Your task to perform on an android device: Go to calendar. Show me events next week Image 0: 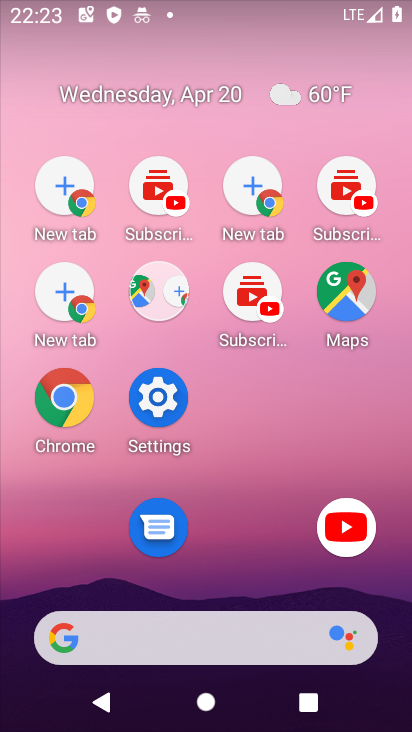
Step 0: drag from (291, 698) to (189, 170)
Your task to perform on an android device: Go to calendar. Show me events next week Image 1: 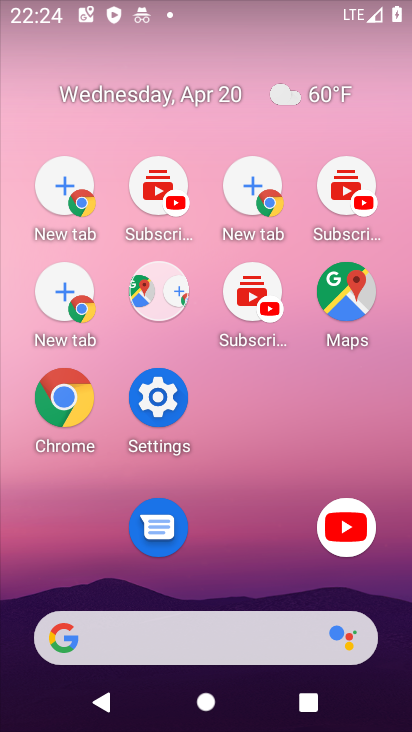
Step 1: drag from (282, 430) to (255, 67)
Your task to perform on an android device: Go to calendar. Show me events next week Image 2: 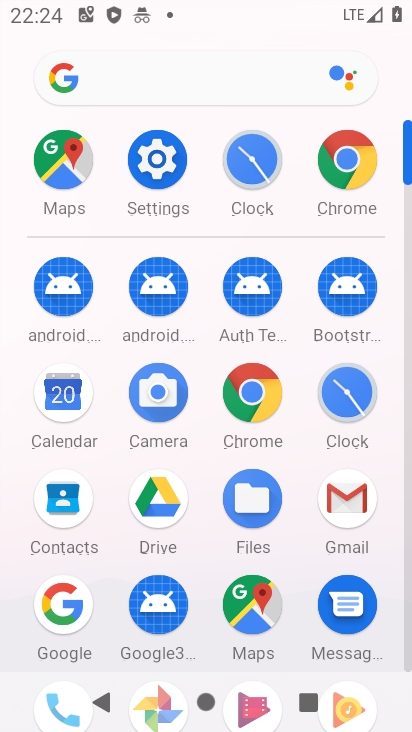
Step 2: drag from (238, 366) to (223, 271)
Your task to perform on an android device: Go to calendar. Show me events next week Image 3: 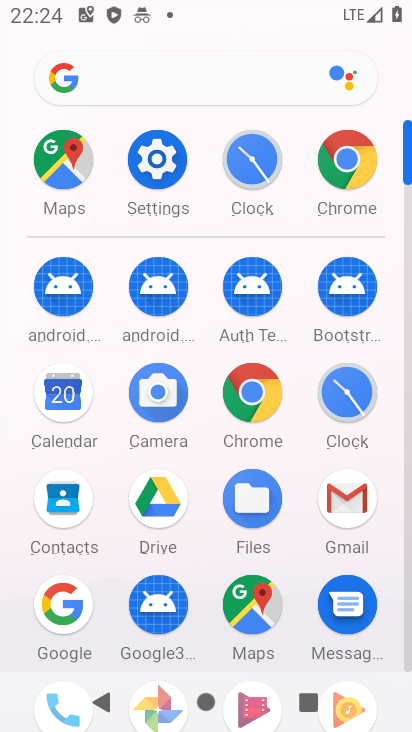
Step 3: click (55, 398)
Your task to perform on an android device: Go to calendar. Show me events next week Image 4: 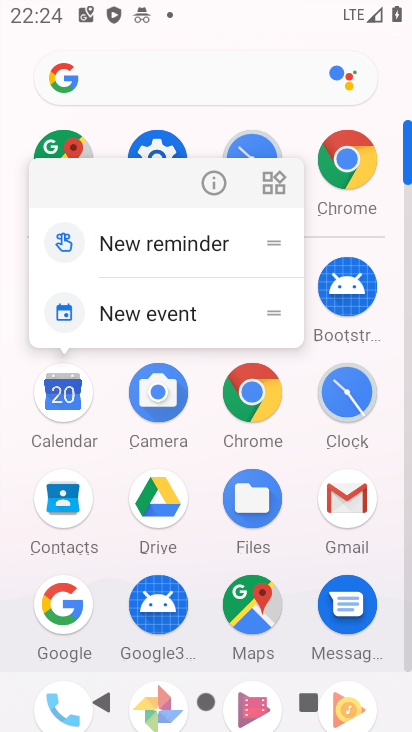
Step 4: click (64, 392)
Your task to perform on an android device: Go to calendar. Show me events next week Image 5: 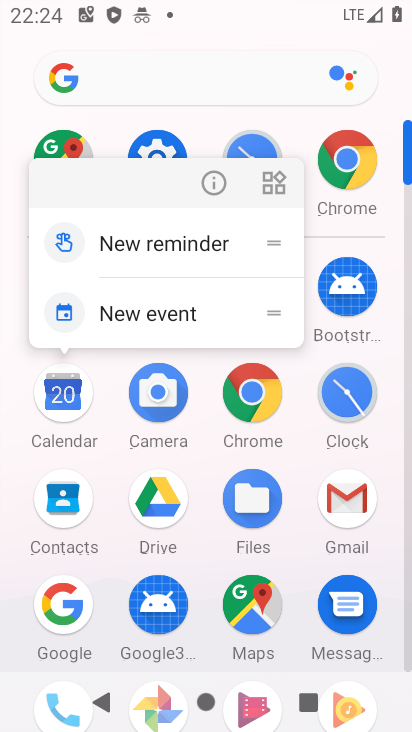
Step 5: click (64, 400)
Your task to perform on an android device: Go to calendar. Show me events next week Image 6: 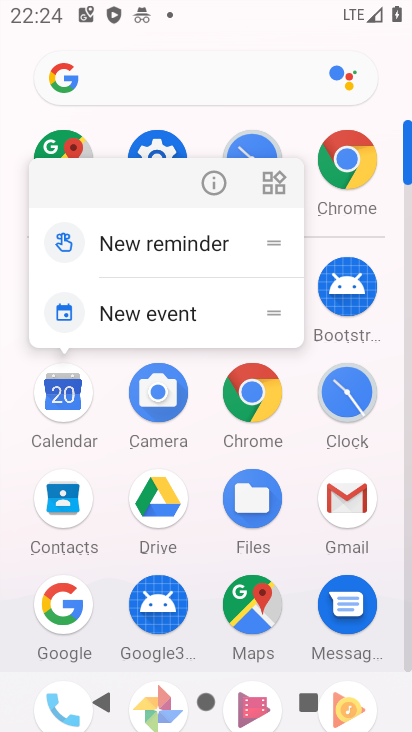
Step 6: click (67, 399)
Your task to perform on an android device: Go to calendar. Show me events next week Image 7: 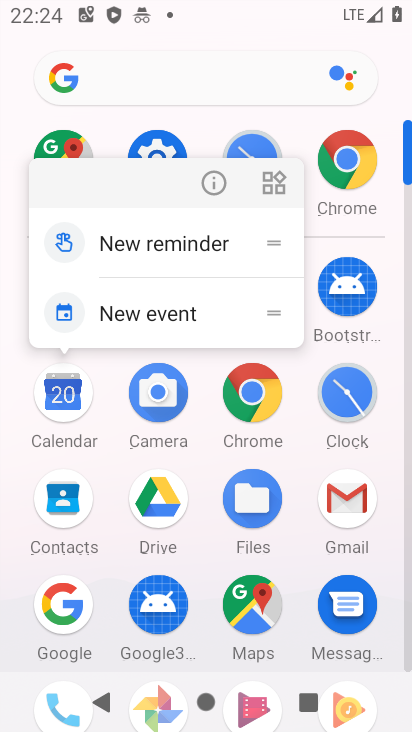
Step 7: click (66, 397)
Your task to perform on an android device: Go to calendar. Show me events next week Image 8: 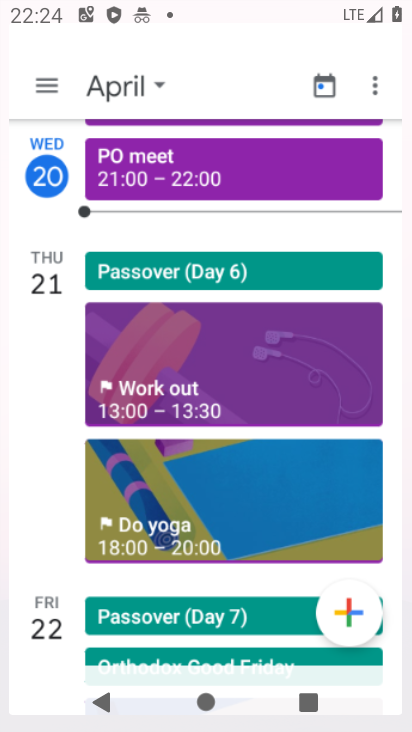
Step 8: click (65, 395)
Your task to perform on an android device: Go to calendar. Show me events next week Image 9: 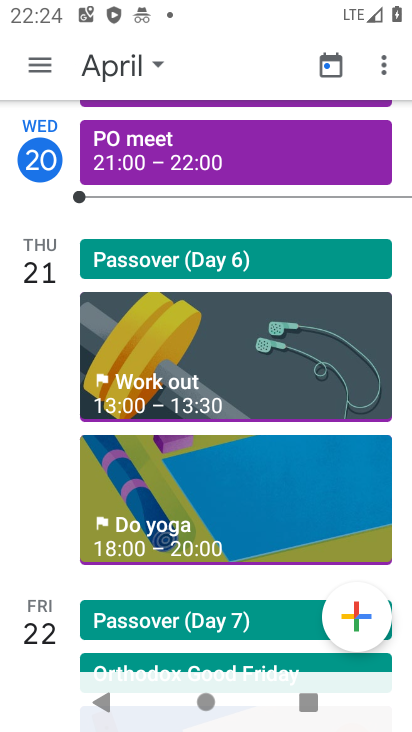
Step 9: drag from (186, 559) to (214, 145)
Your task to perform on an android device: Go to calendar. Show me events next week Image 10: 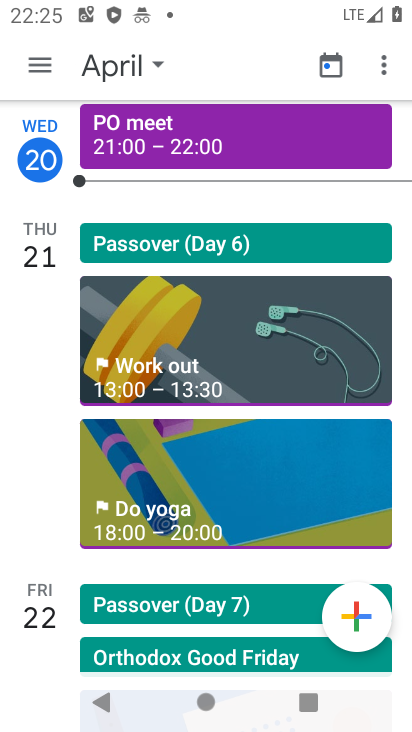
Step 10: drag from (219, 166) to (140, 202)
Your task to perform on an android device: Go to calendar. Show me events next week Image 11: 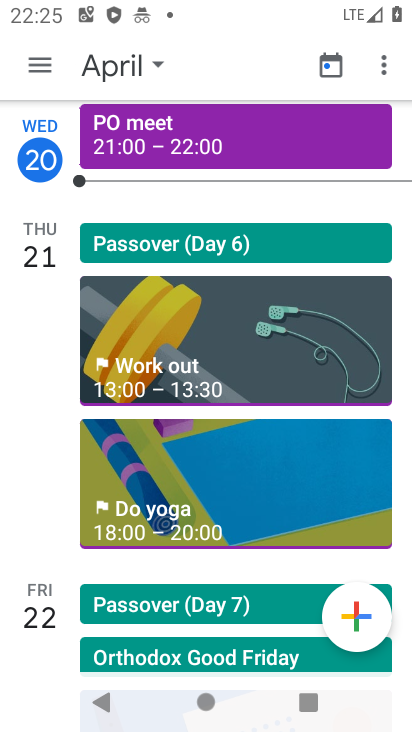
Step 11: drag from (205, 482) to (186, 103)
Your task to perform on an android device: Go to calendar. Show me events next week Image 12: 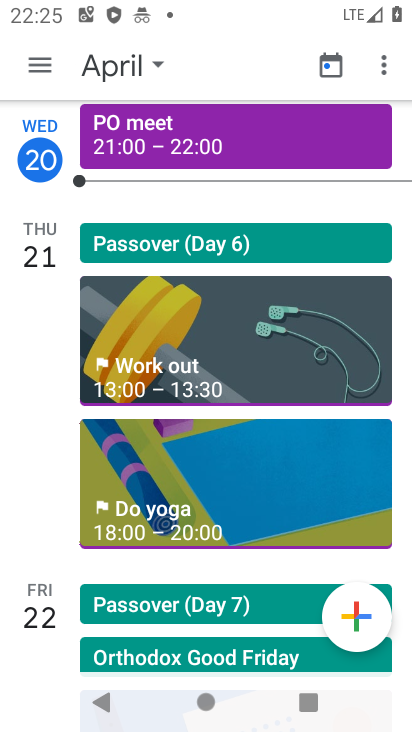
Step 12: click (222, 12)
Your task to perform on an android device: Go to calendar. Show me events next week Image 13: 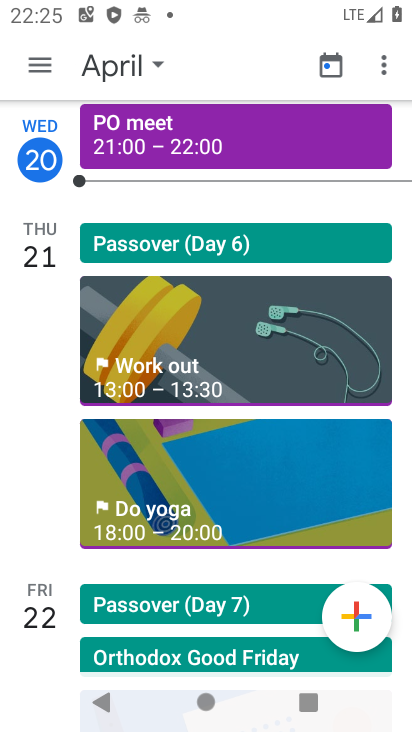
Step 13: task complete